Your task to perform on an android device: check out phone information Image 0: 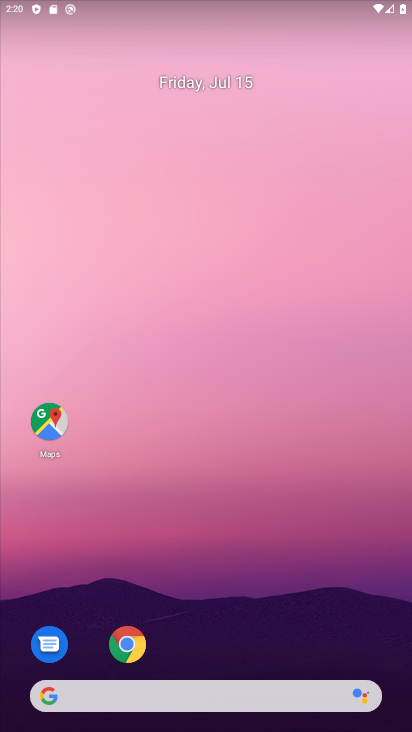
Step 0: drag from (292, 581) to (316, 74)
Your task to perform on an android device: check out phone information Image 1: 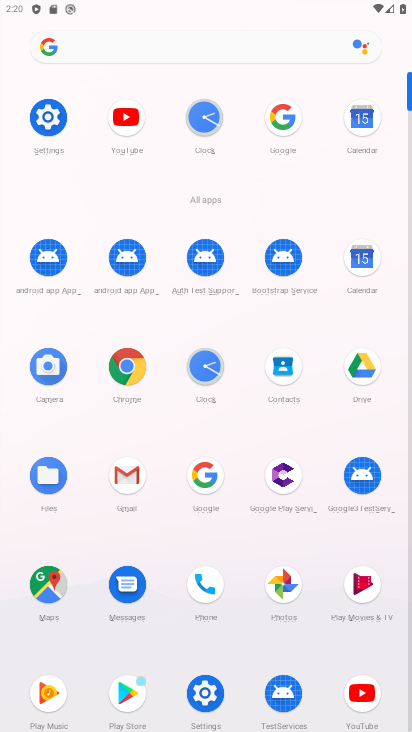
Step 1: click (50, 116)
Your task to perform on an android device: check out phone information Image 2: 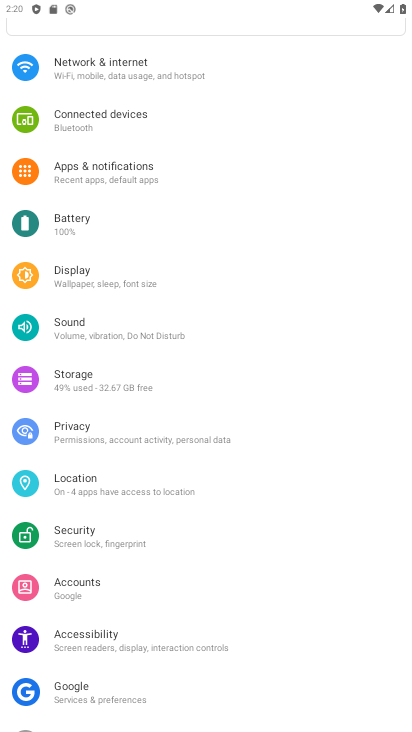
Step 2: drag from (201, 665) to (223, 7)
Your task to perform on an android device: check out phone information Image 3: 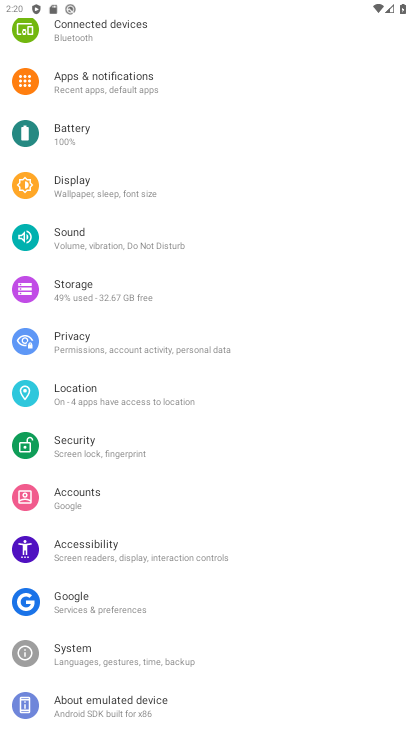
Step 3: drag from (160, 616) to (250, 20)
Your task to perform on an android device: check out phone information Image 4: 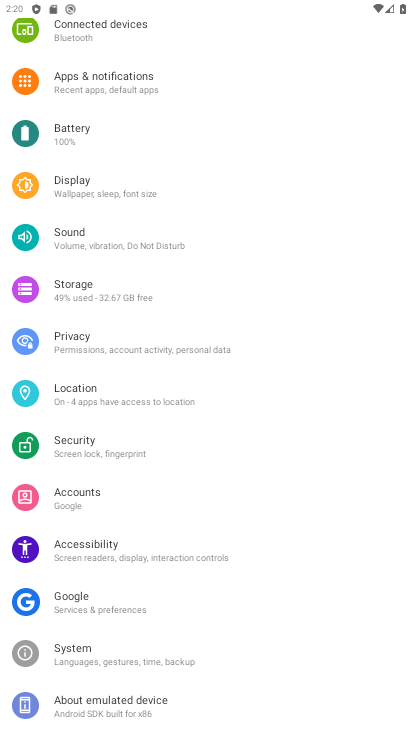
Step 4: drag from (188, 617) to (256, 55)
Your task to perform on an android device: check out phone information Image 5: 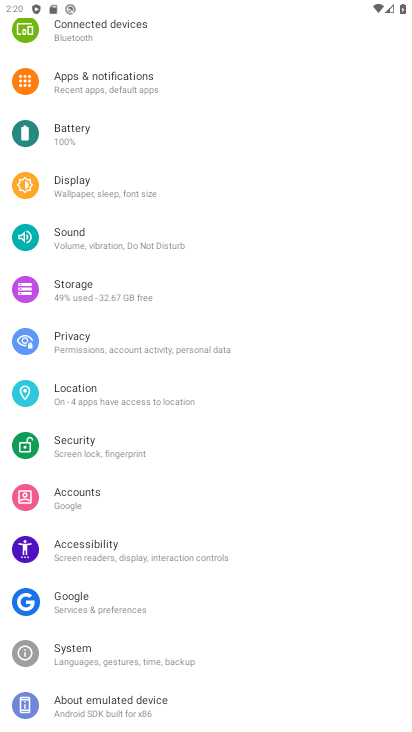
Step 5: click (90, 713)
Your task to perform on an android device: check out phone information Image 6: 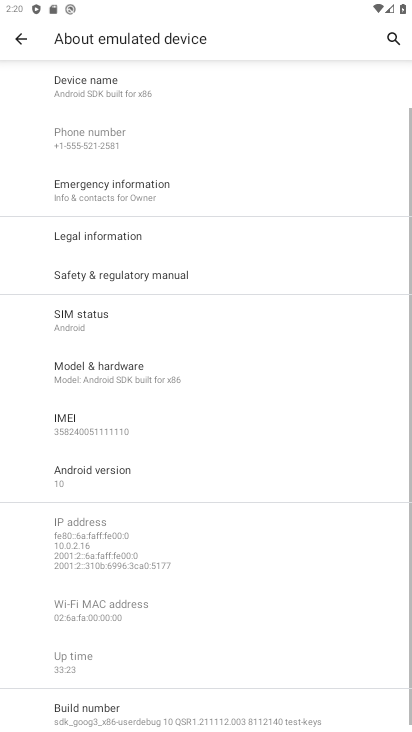
Step 6: task complete